Your task to perform on an android device: Go to eBay Image 0: 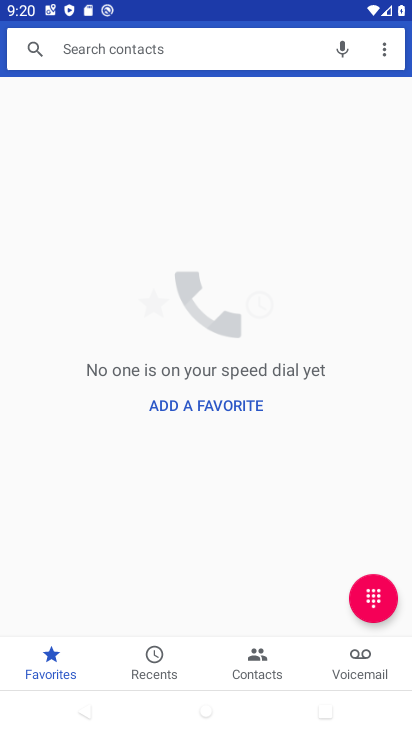
Step 0: press home button
Your task to perform on an android device: Go to eBay Image 1: 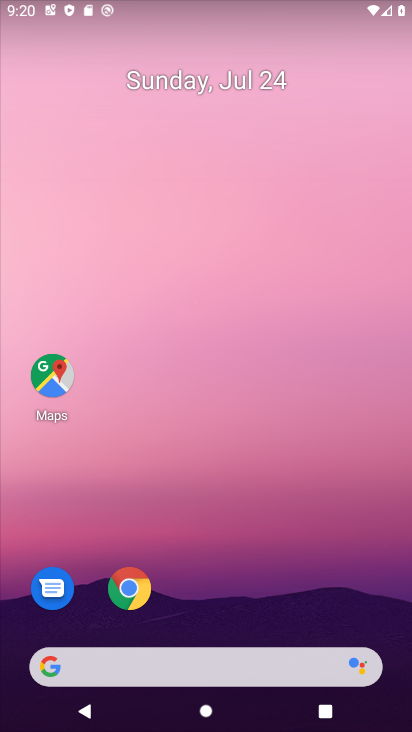
Step 1: click (129, 662)
Your task to perform on an android device: Go to eBay Image 2: 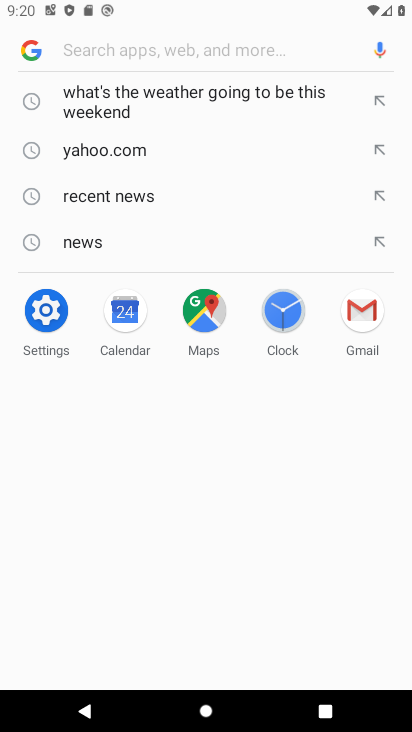
Step 2: type "ebay"
Your task to perform on an android device: Go to eBay Image 3: 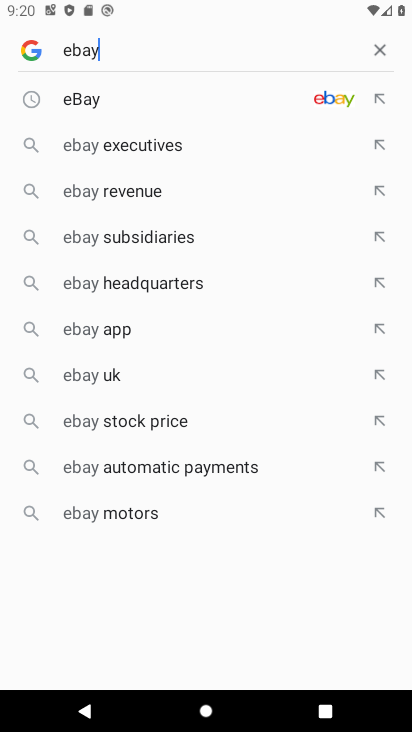
Step 3: click (95, 109)
Your task to perform on an android device: Go to eBay Image 4: 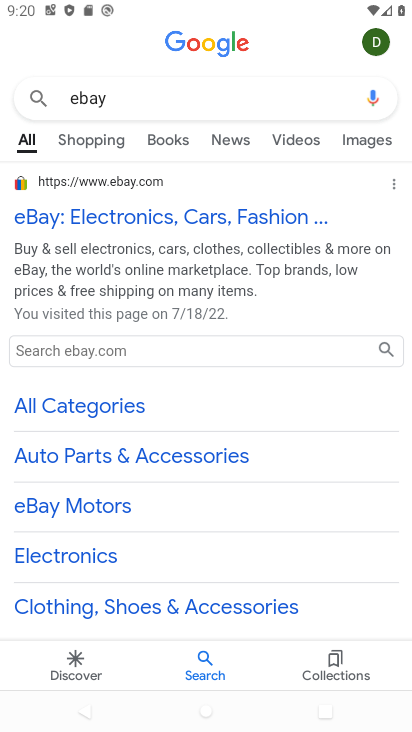
Step 4: click (44, 213)
Your task to perform on an android device: Go to eBay Image 5: 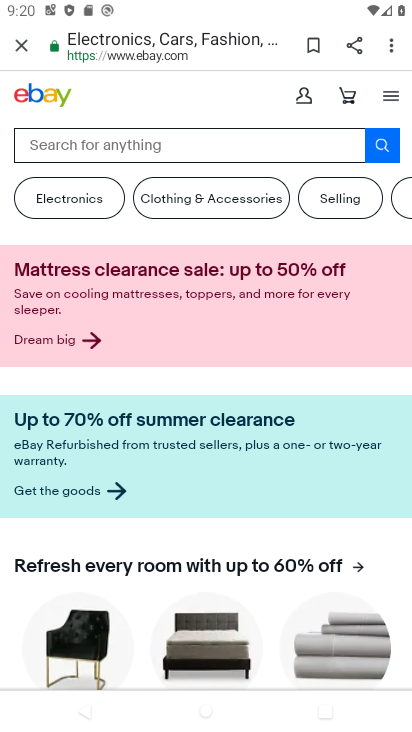
Step 5: task complete